Your task to perform on an android device: open app "Facebook" (install if not already installed) Image 0: 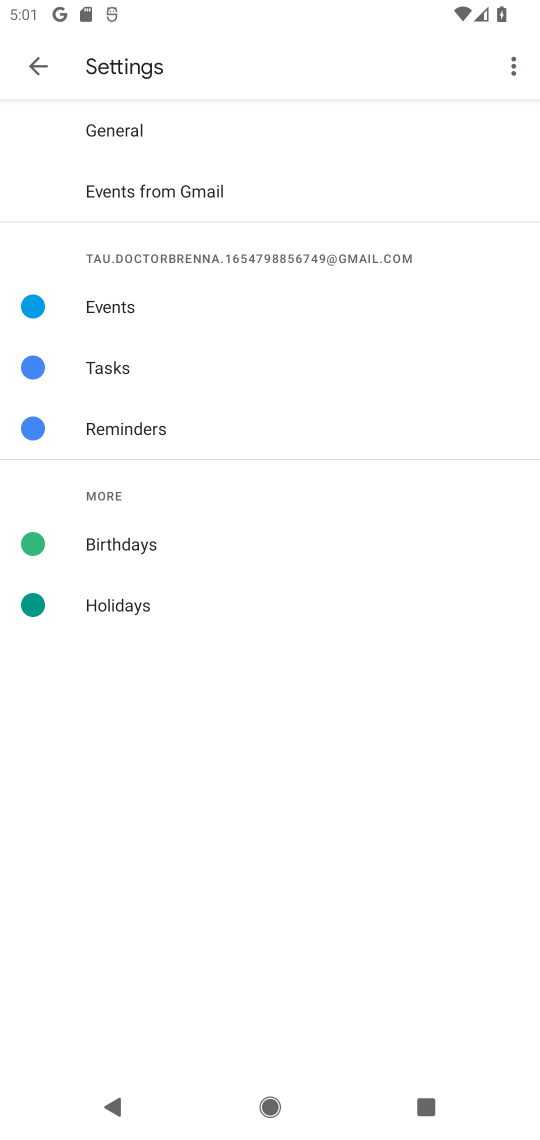
Step 0: click (27, 89)
Your task to perform on an android device: open app "Facebook" (install if not already installed) Image 1: 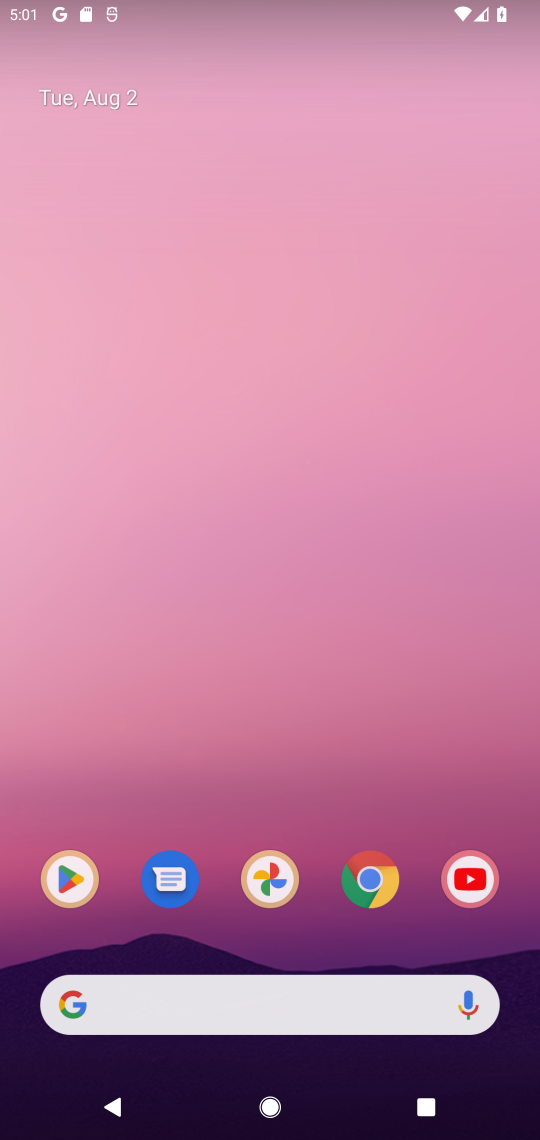
Step 1: press home button
Your task to perform on an android device: open app "Facebook" (install if not already installed) Image 2: 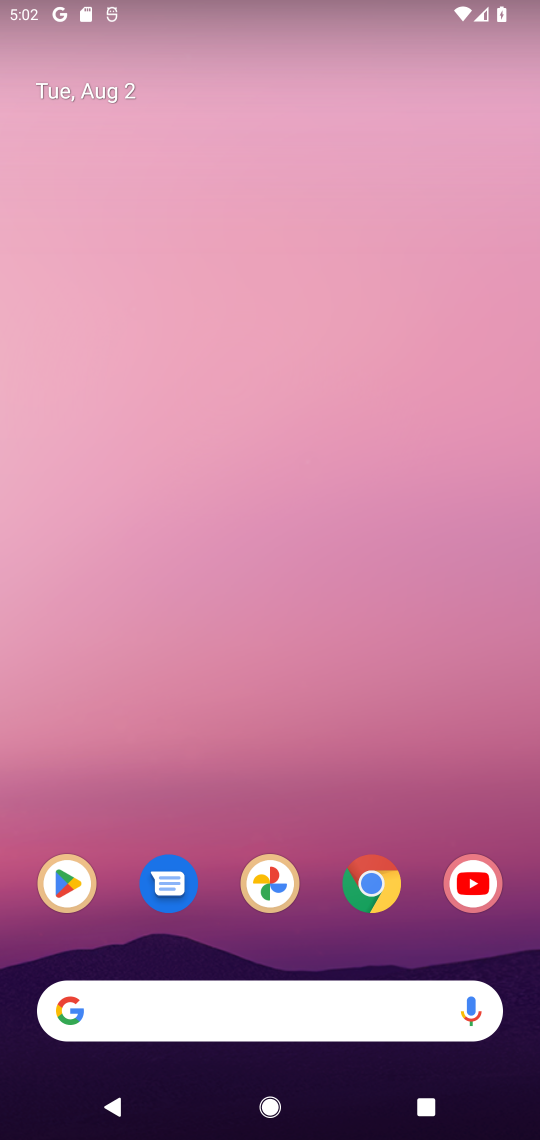
Step 2: click (59, 883)
Your task to perform on an android device: open app "Facebook" (install if not already installed) Image 3: 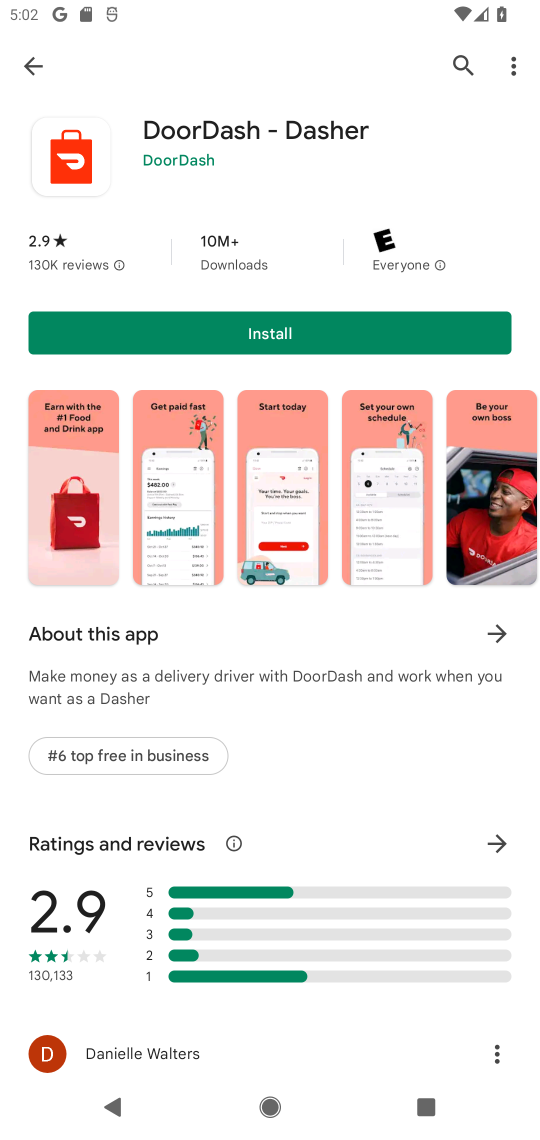
Step 3: click (31, 73)
Your task to perform on an android device: open app "Facebook" (install if not already installed) Image 4: 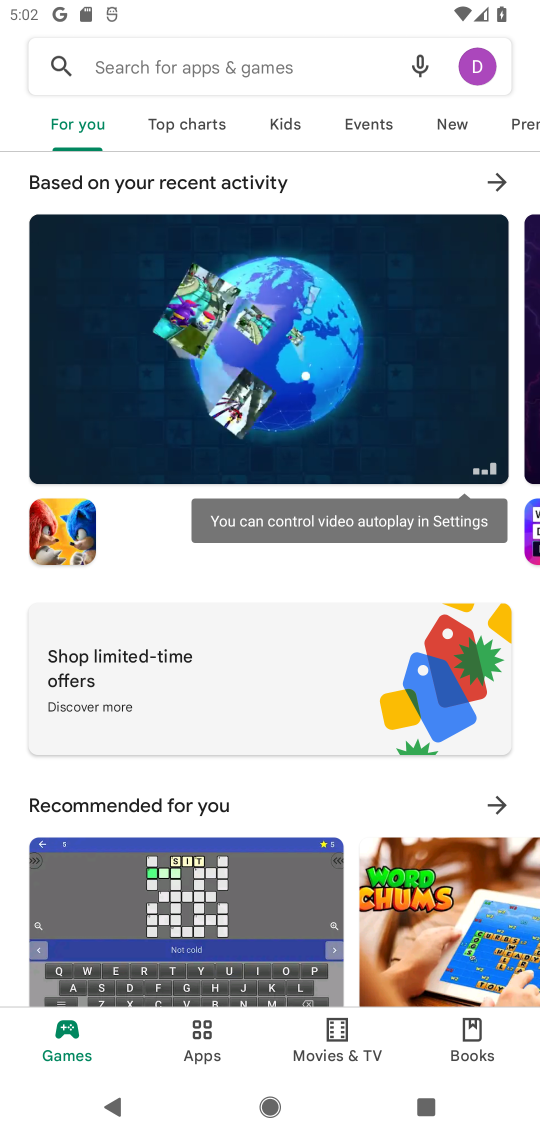
Step 4: click (253, 74)
Your task to perform on an android device: open app "Facebook" (install if not already installed) Image 5: 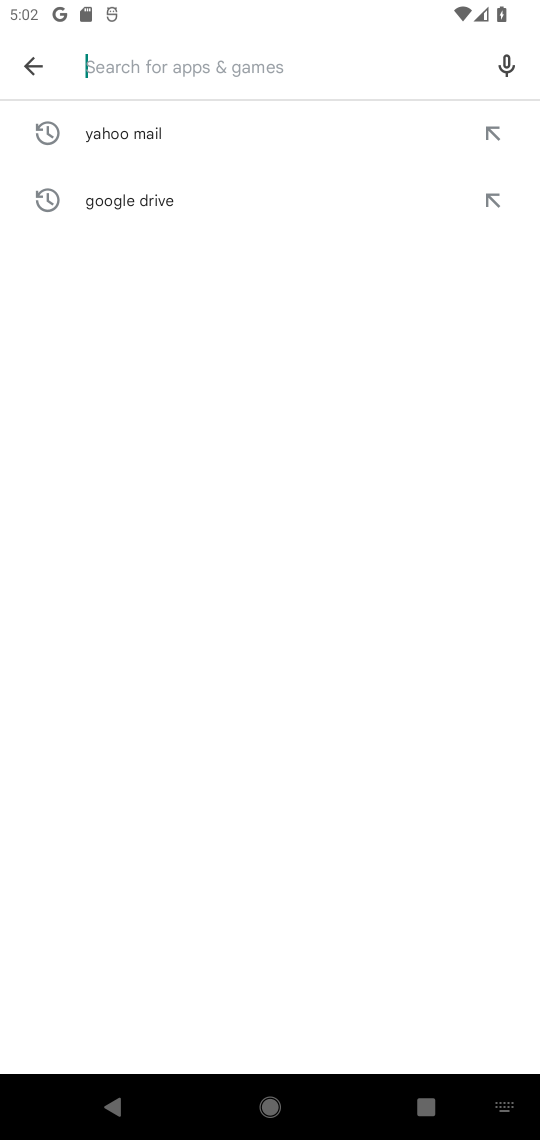
Step 5: drag from (304, 1059) to (518, 1012)
Your task to perform on an android device: open app "Facebook" (install if not already installed) Image 6: 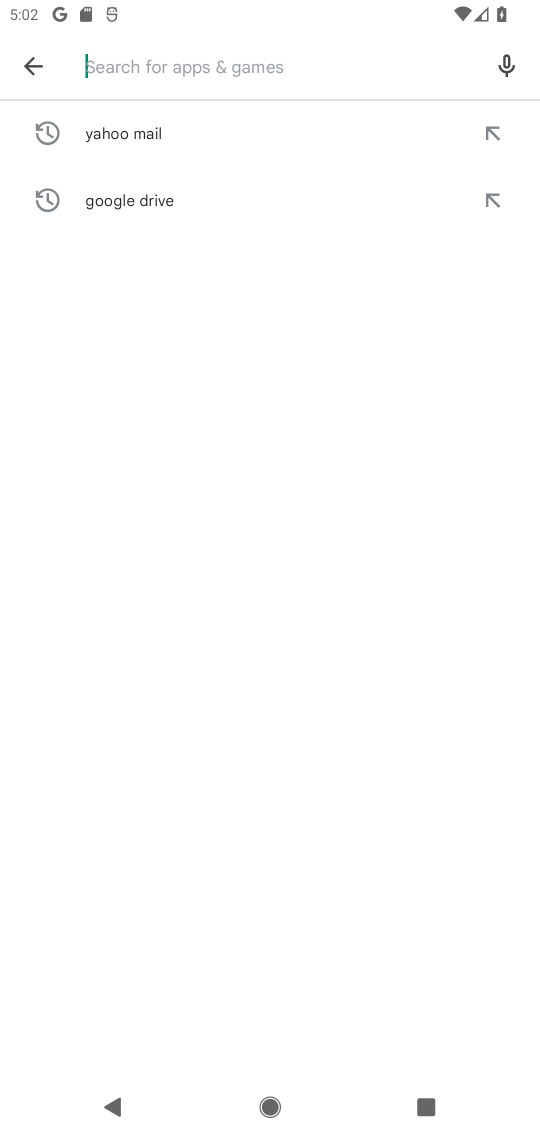
Step 6: type "Facebook"
Your task to perform on an android device: open app "Facebook" (install if not already installed) Image 7: 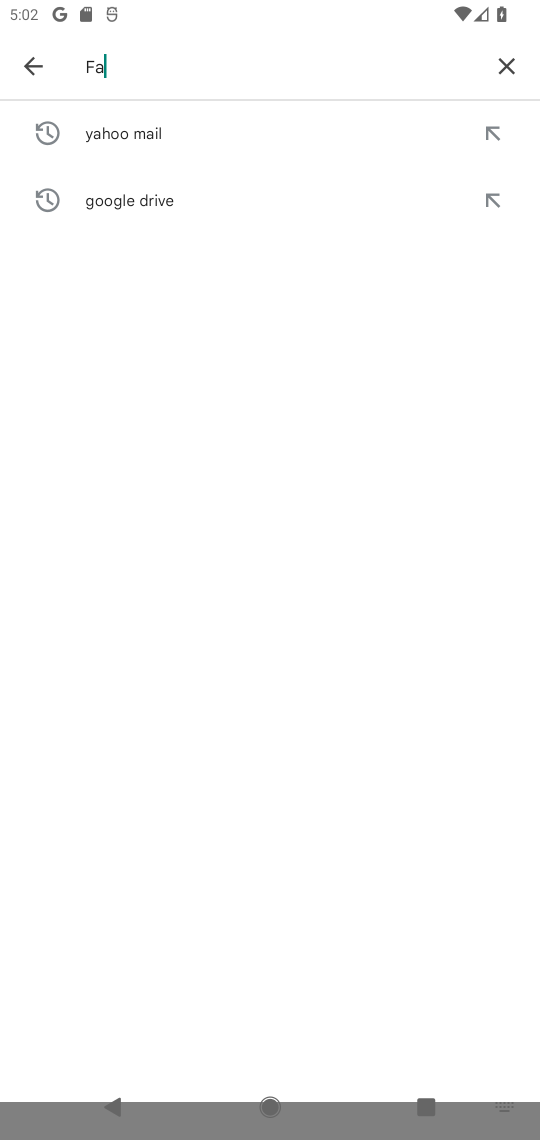
Step 7: type ""
Your task to perform on an android device: open app "Facebook" (install if not already installed) Image 8: 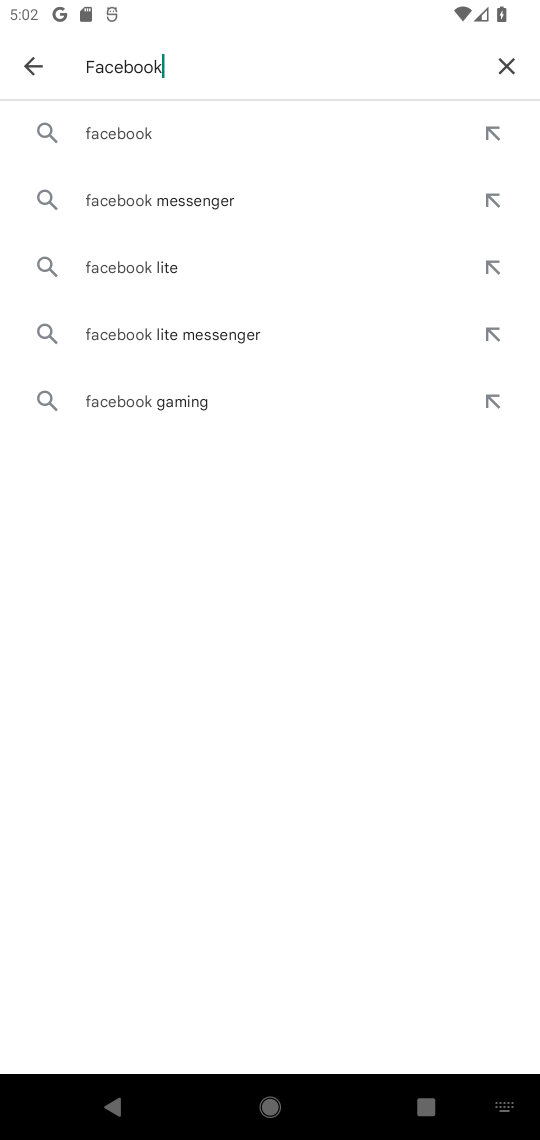
Step 8: click (98, 129)
Your task to perform on an android device: open app "Facebook" (install if not already installed) Image 9: 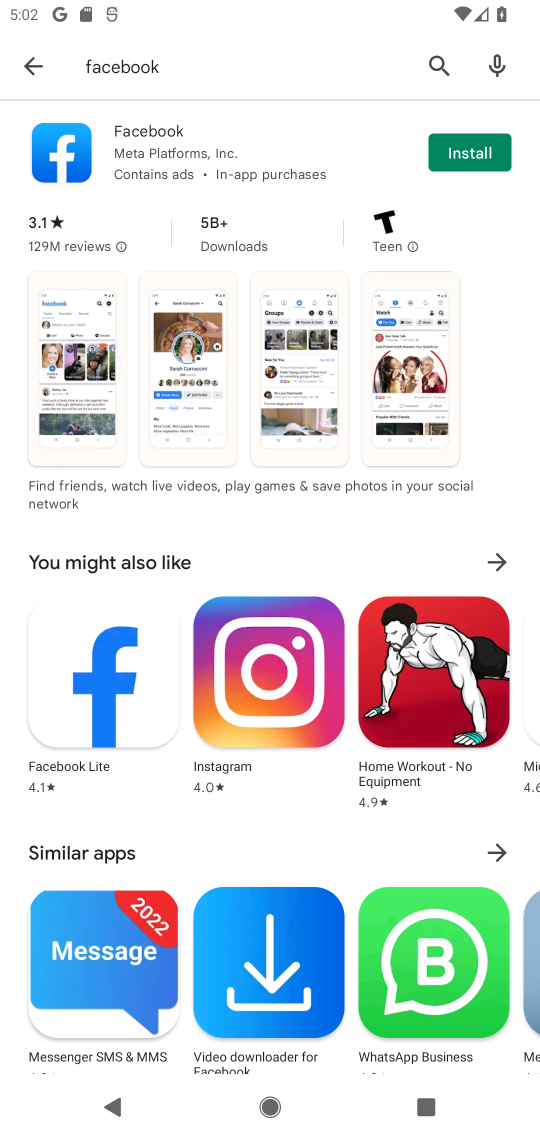
Step 9: click (448, 166)
Your task to perform on an android device: open app "Facebook" (install if not already installed) Image 10: 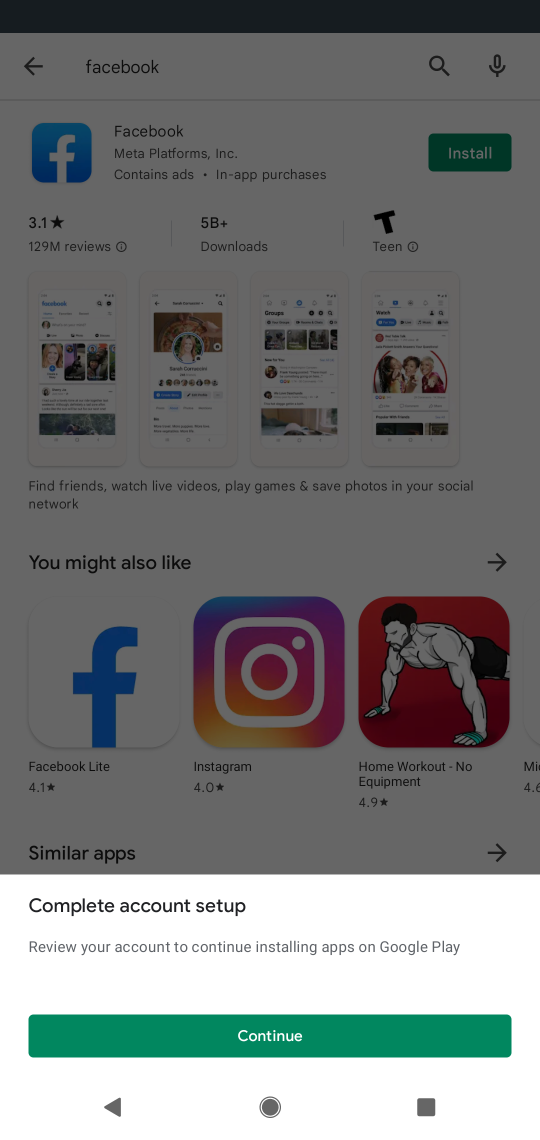
Step 10: click (287, 1034)
Your task to perform on an android device: open app "Facebook" (install if not already installed) Image 11: 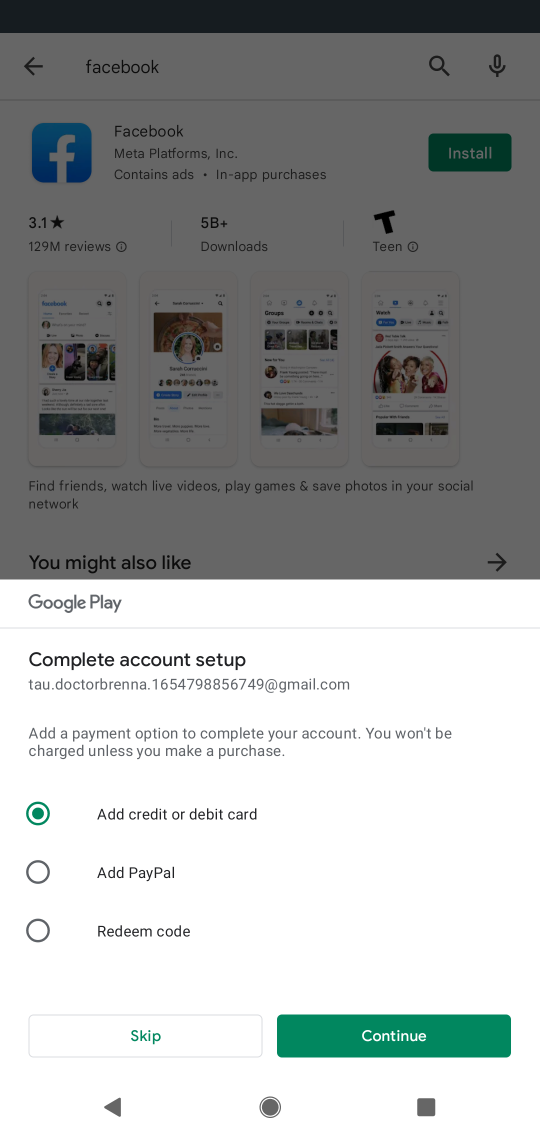
Step 11: click (159, 1049)
Your task to perform on an android device: open app "Facebook" (install if not already installed) Image 12: 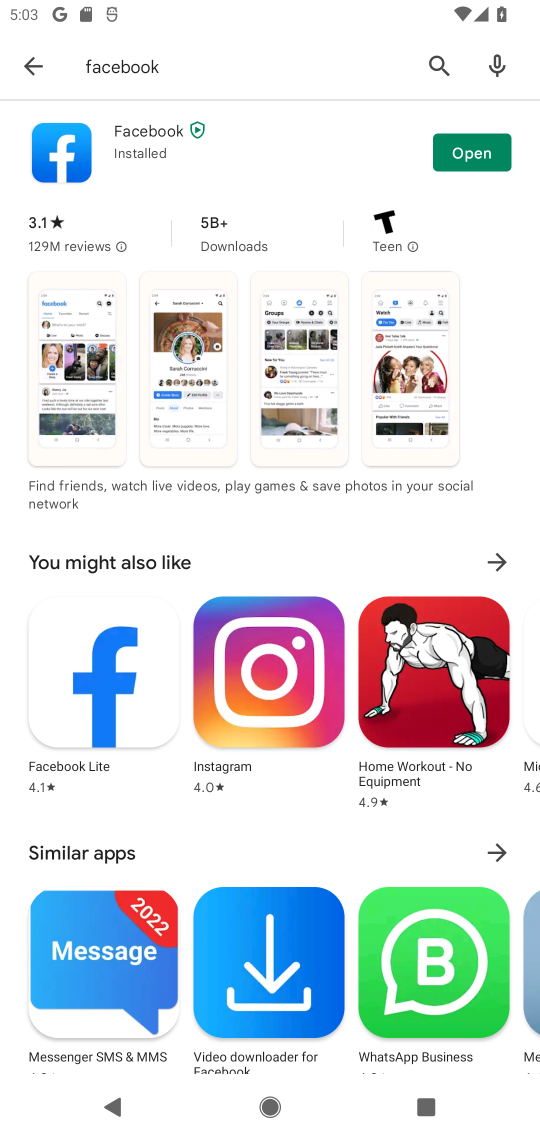
Step 12: click (485, 141)
Your task to perform on an android device: open app "Facebook" (install if not already installed) Image 13: 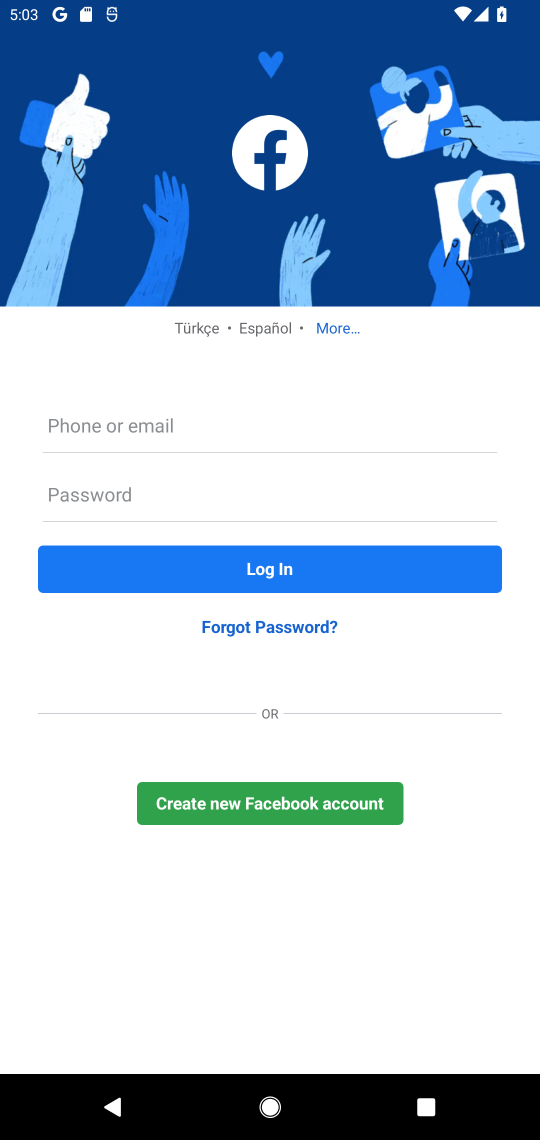
Step 13: task complete